Your task to perform on an android device: Open the stopwatch Image 0: 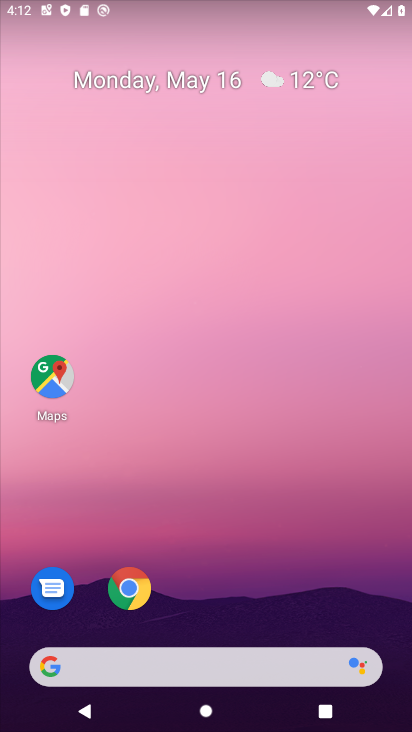
Step 0: drag from (223, 559) to (327, 7)
Your task to perform on an android device: Open the stopwatch Image 1: 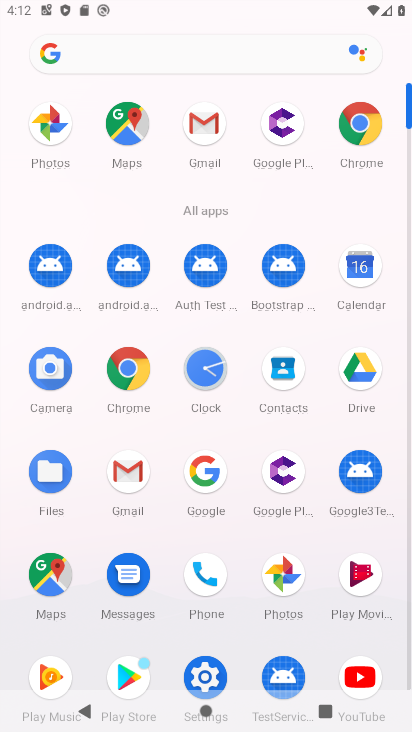
Step 1: click (206, 382)
Your task to perform on an android device: Open the stopwatch Image 2: 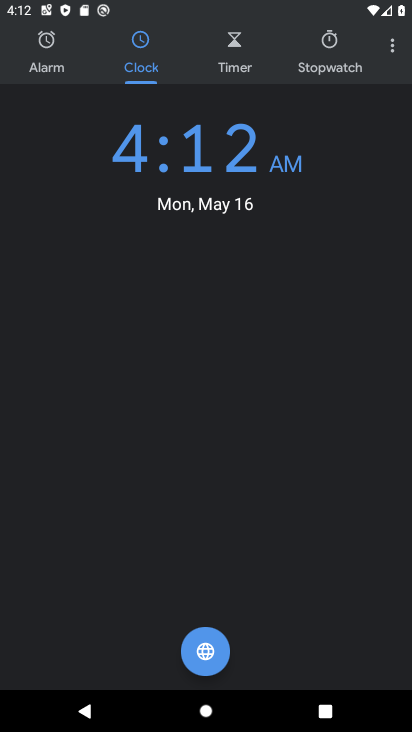
Step 2: click (325, 47)
Your task to perform on an android device: Open the stopwatch Image 3: 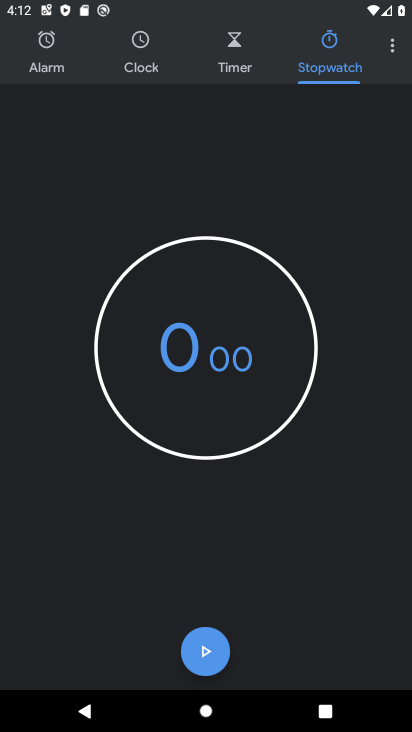
Step 3: task complete